Your task to perform on an android device: find photos in the google photos app Image 0: 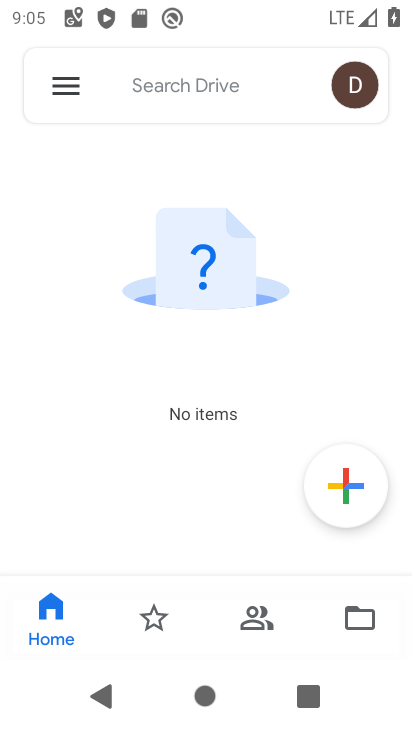
Step 0: press back button
Your task to perform on an android device: find photos in the google photos app Image 1: 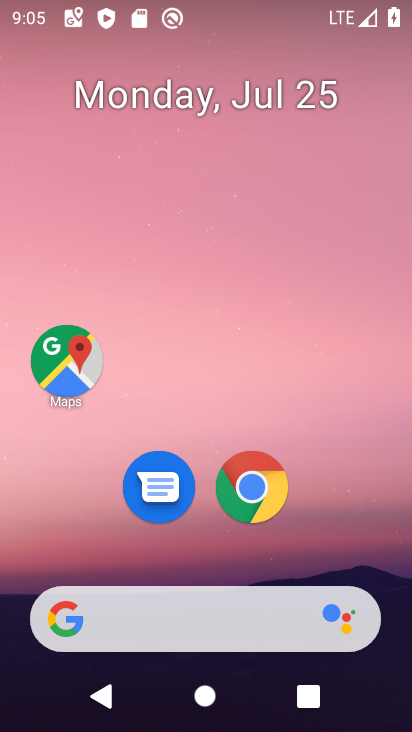
Step 1: drag from (200, 562) to (264, 33)
Your task to perform on an android device: find photos in the google photos app Image 2: 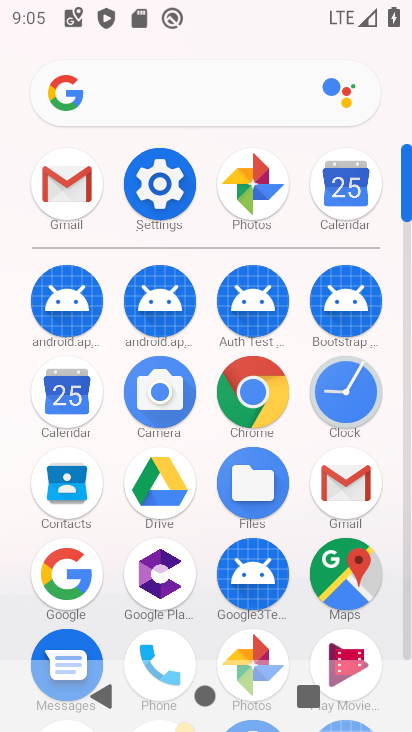
Step 2: click (261, 637)
Your task to perform on an android device: find photos in the google photos app Image 3: 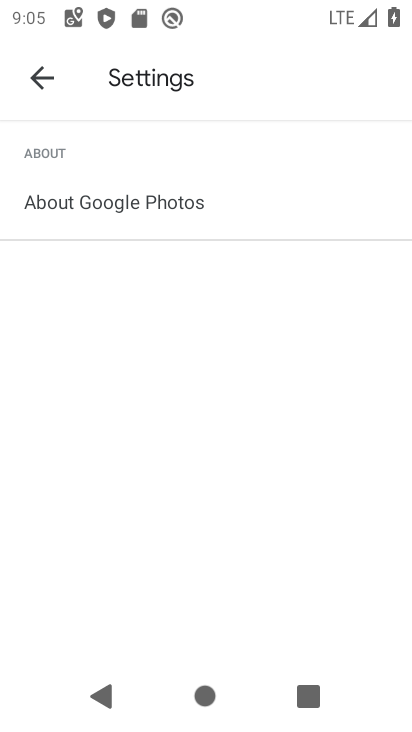
Step 3: click (49, 87)
Your task to perform on an android device: find photos in the google photos app Image 4: 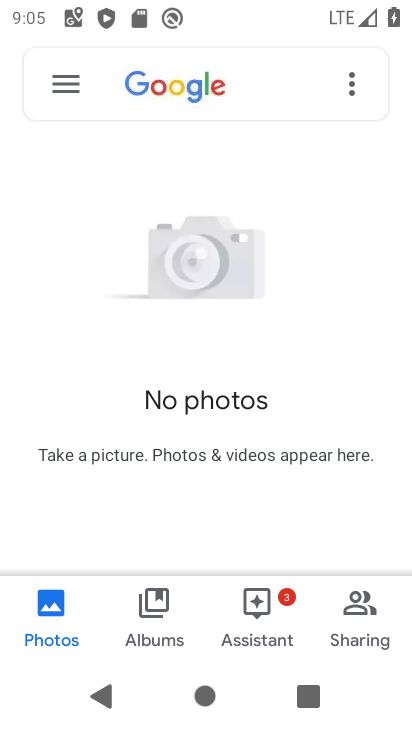
Step 4: click (49, 611)
Your task to perform on an android device: find photos in the google photos app Image 5: 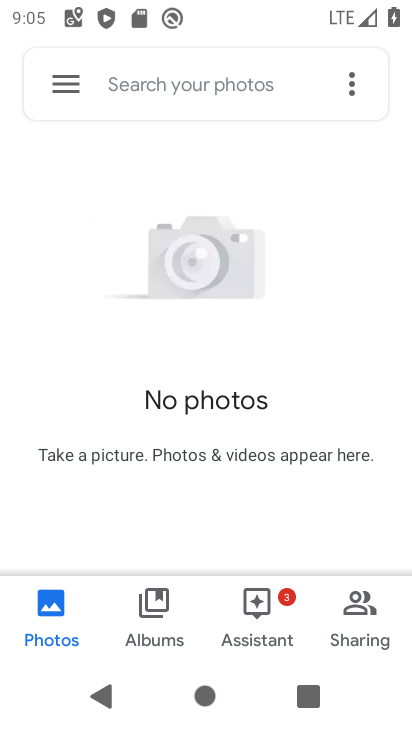
Step 5: task complete